Your task to perform on an android device: check android version Image 0: 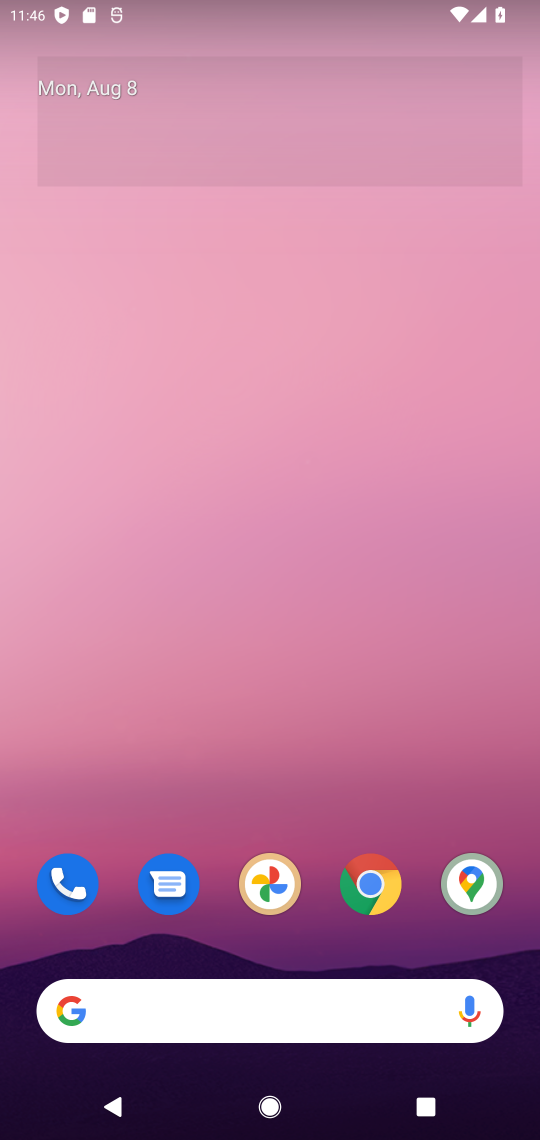
Step 0: drag from (422, 701) to (525, 958)
Your task to perform on an android device: check android version Image 1: 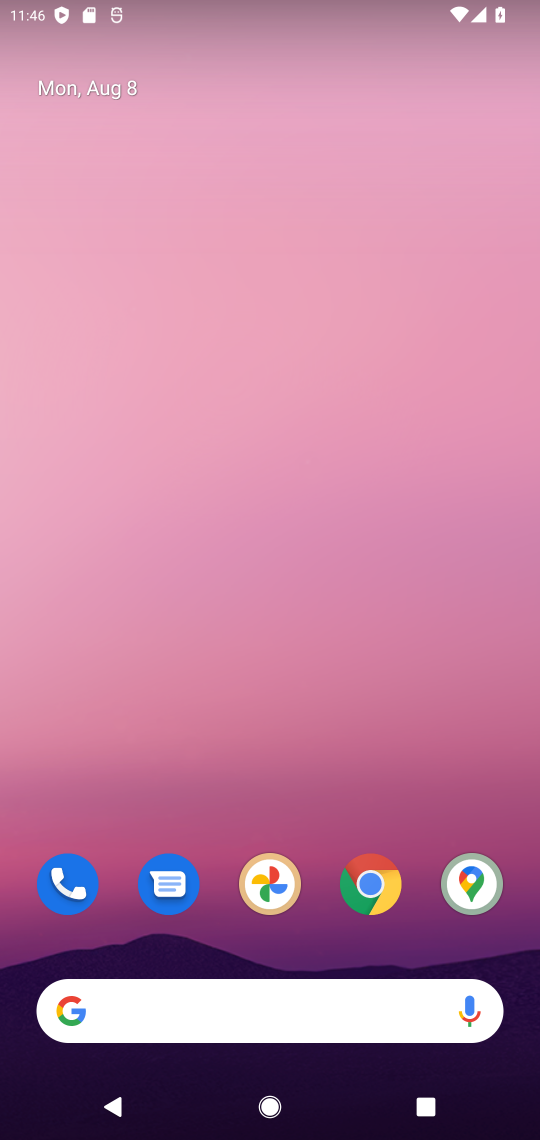
Step 1: drag from (187, 1032) to (307, 104)
Your task to perform on an android device: check android version Image 2: 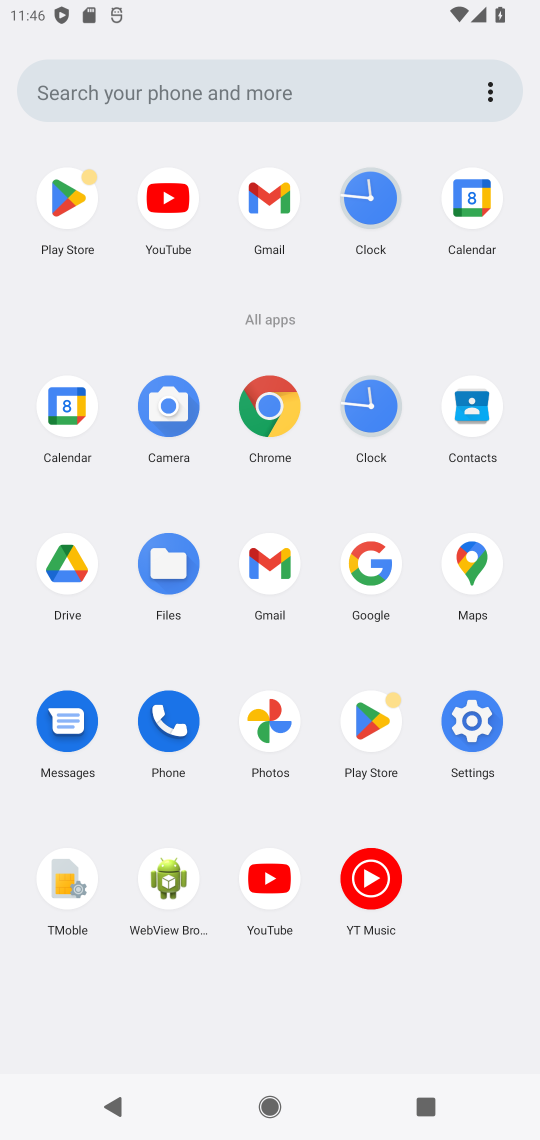
Step 2: click (481, 725)
Your task to perform on an android device: check android version Image 3: 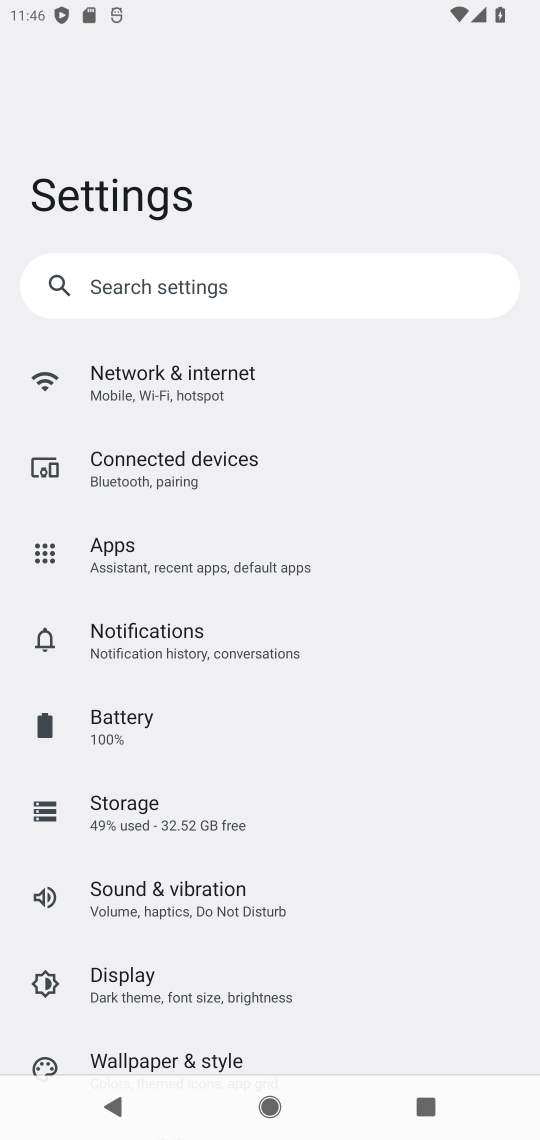
Step 3: drag from (291, 1013) to (321, 59)
Your task to perform on an android device: check android version Image 4: 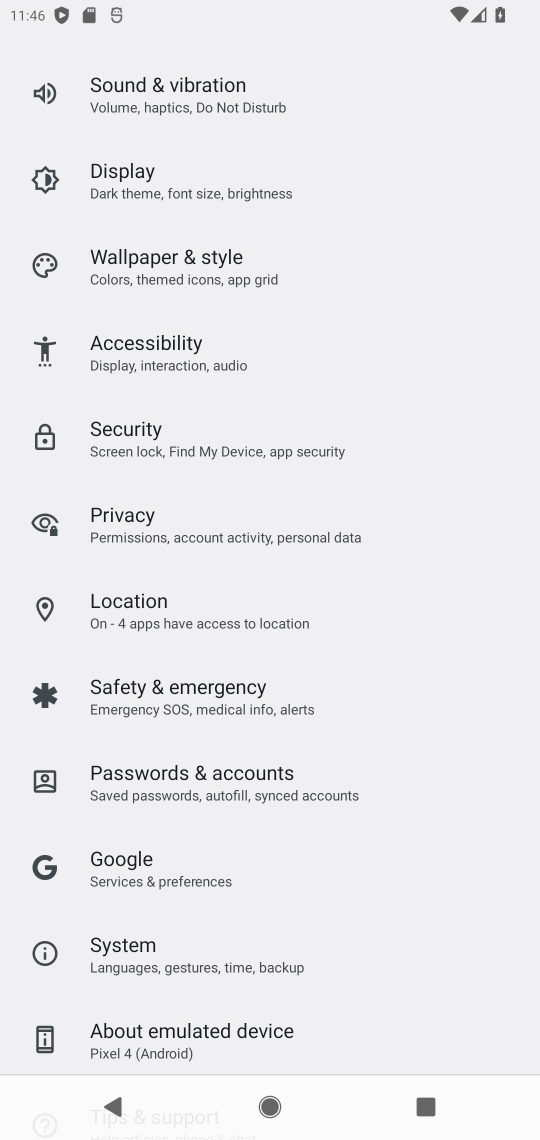
Step 4: click (315, 1047)
Your task to perform on an android device: check android version Image 5: 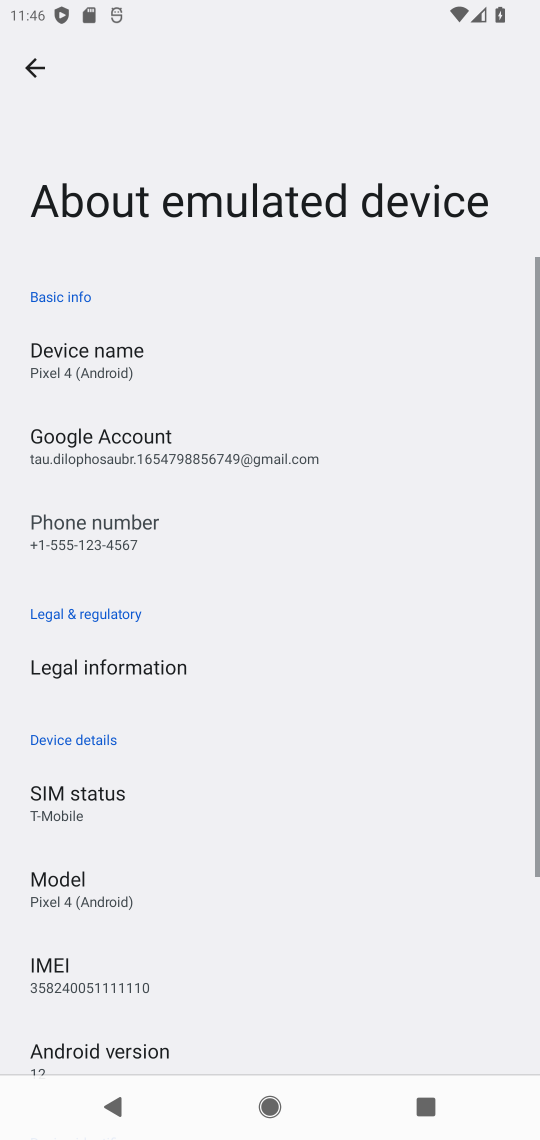
Step 5: task complete